Your task to perform on an android device: see creations saved in the google photos Image 0: 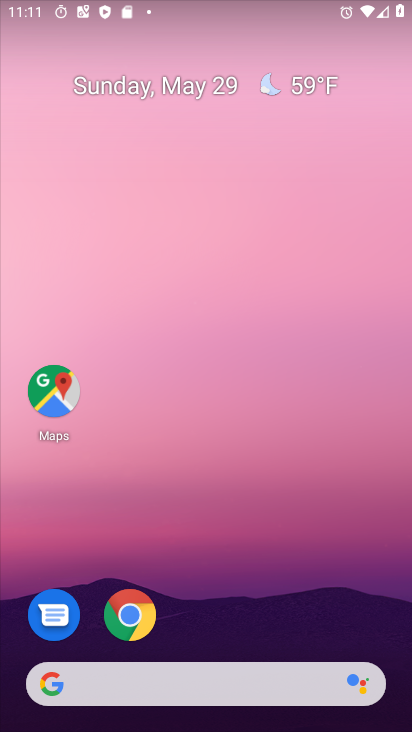
Step 0: drag from (271, 571) to (370, 114)
Your task to perform on an android device: see creations saved in the google photos Image 1: 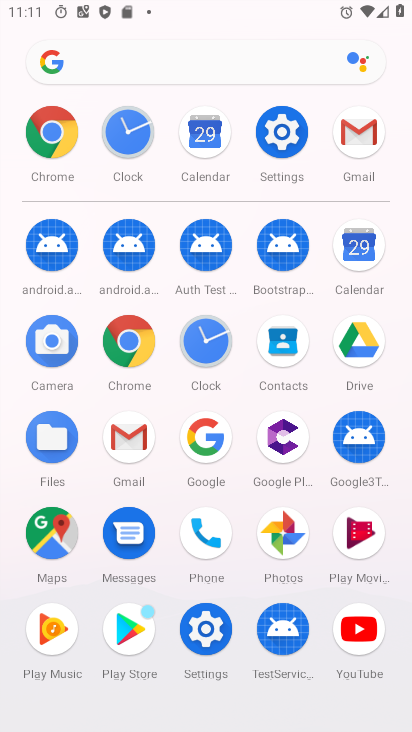
Step 1: click (285, 530)
Your task to perform on an android device: see creations saved in the google photos Image 2: 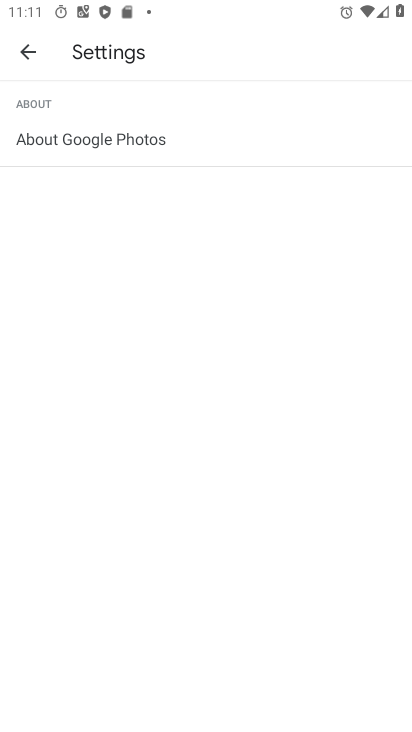
Step 2: press back button
Your task to perform on an android device: see creations saved in the google photos Image 3: 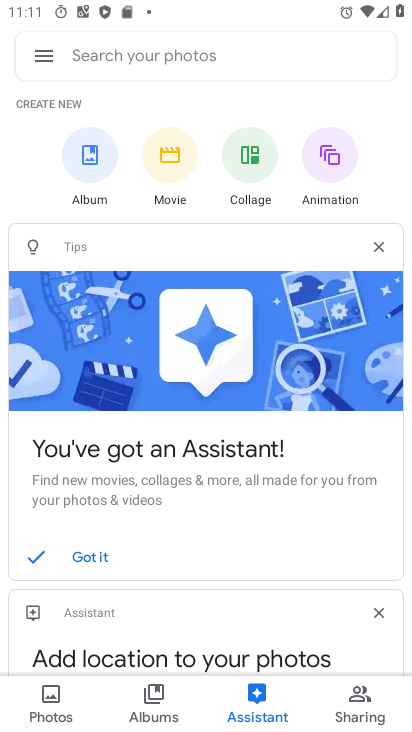
Step 3: click (160, 60)
Your task to perform on an android device: see creations saved in the google photos Image 4: 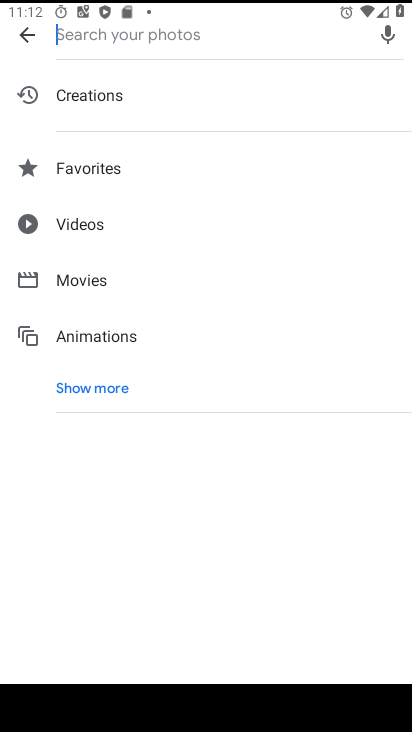
Step 4: click (87, 381)
Your task to perform on an android device: see creations saved in the google photos Image 5: 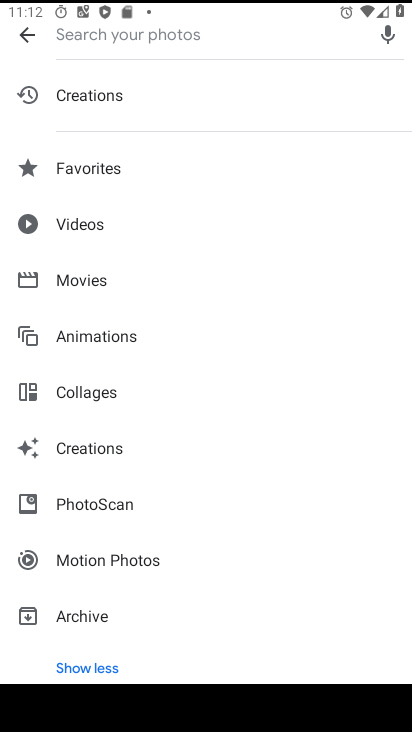
Step 5: click (101, 113)
Your task to perform on an android device: see creations saved in the google photos Image 6: 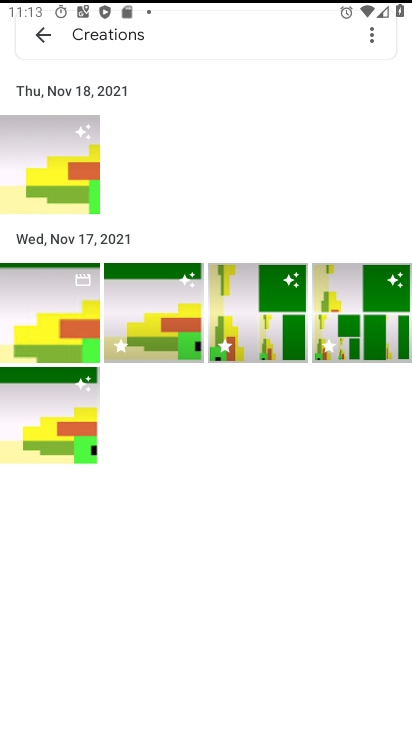
Step 6: task complete